Your task to perform on an android device: Open Google Maps and go to "Timeline" Image 0: 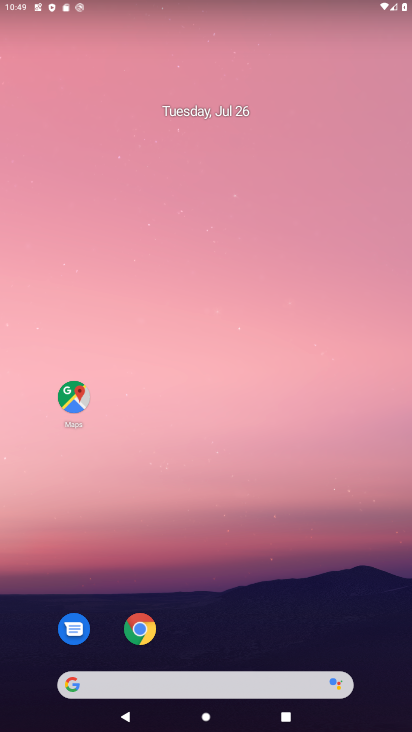
Step 0: drag from (313, 650) to (244, 61)
Your task to perform on an android device: Open Google Maps and go to "Timeline" Image 1: 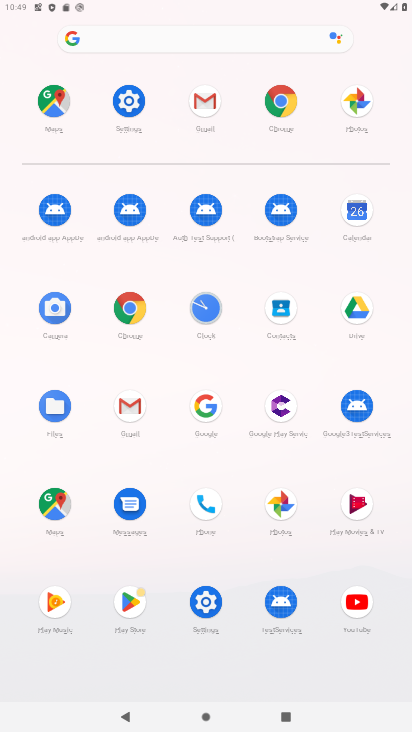
Step 1: click (60, 122)
Your task to perform on an android device: Open Google Maps and go to "Timeline" Image 2: 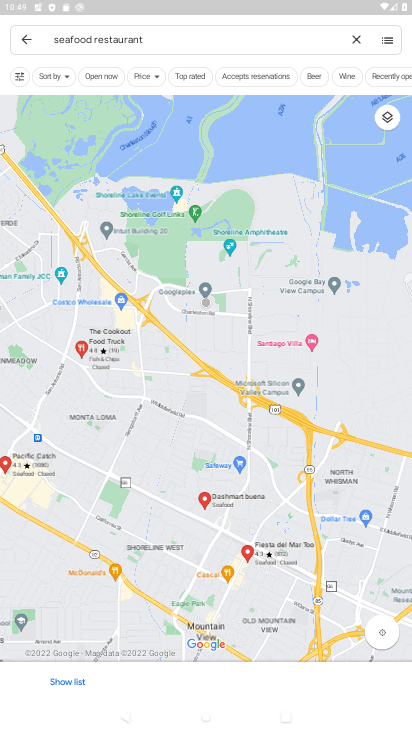
Step 2: click (379, 41)
Your task to perform on an android device: Open Google Maps and go to "Timeline" Image 3: 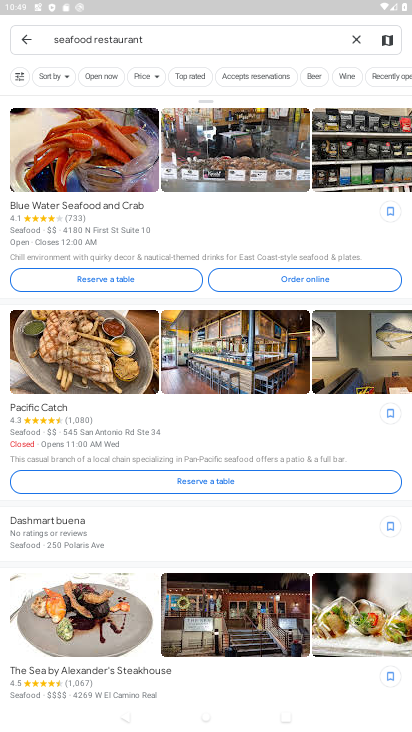
Step 3: click (30, 38)
Your task to perform on an android device: Open Google Maps and go to "Timeline" Image 4: 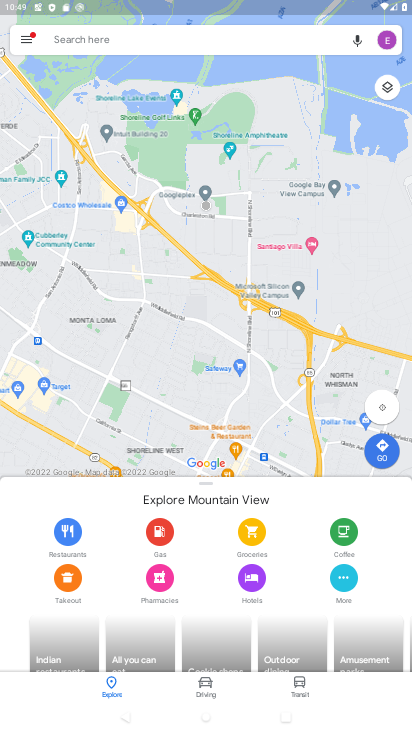
Step 4: click (30, 38)
Your task to perform on an android device: Open Google Maps and go to "Timeline" Image 5: 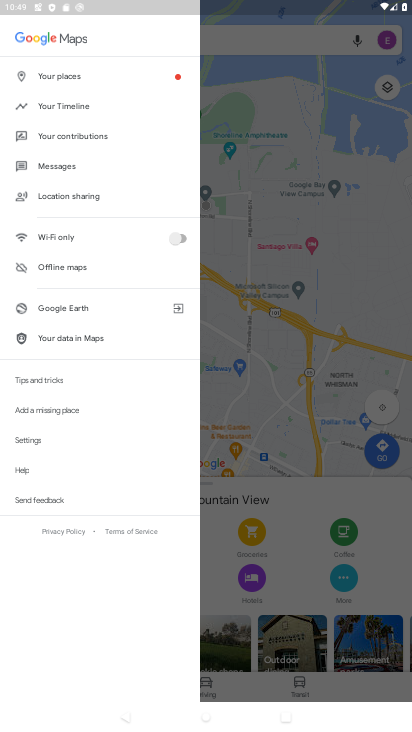
Step 5: click (66, 110)
Your task to perform on an android device: Open Google Maps and go to "Timeline" Image 6: 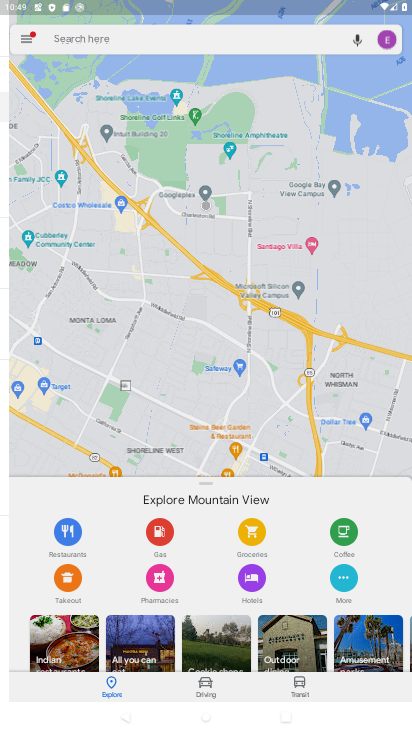
Step 6: task complete